Your task to perform on an android device: Go to Amazon Image 0: 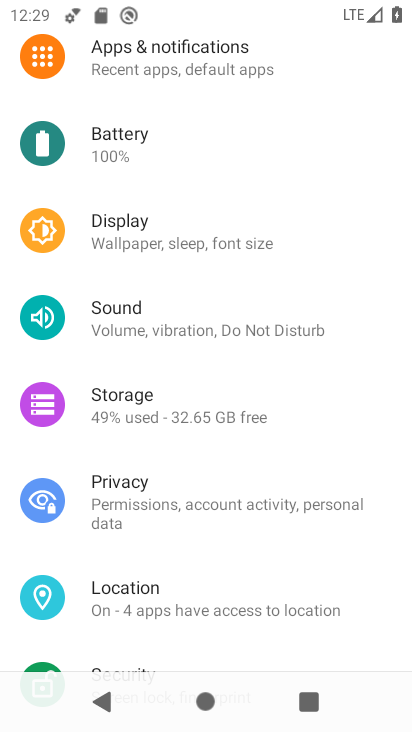
Step 0: press home button
Your task to perform on an android device: Go to Amazon Image 1: 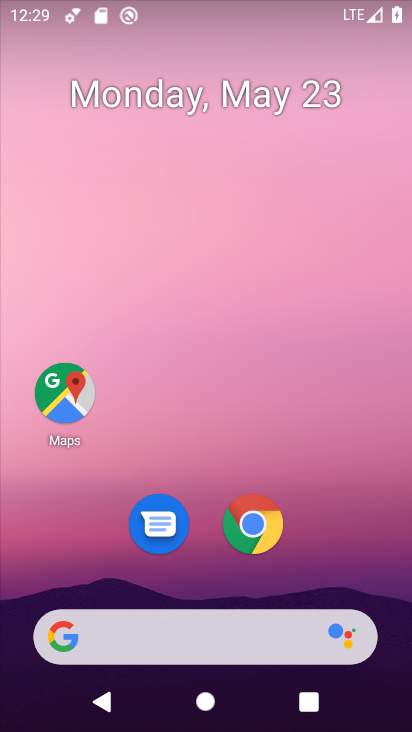
Step 1: click (256, 524)
Your task to perform on an android device: Go to Amazon Image 2: 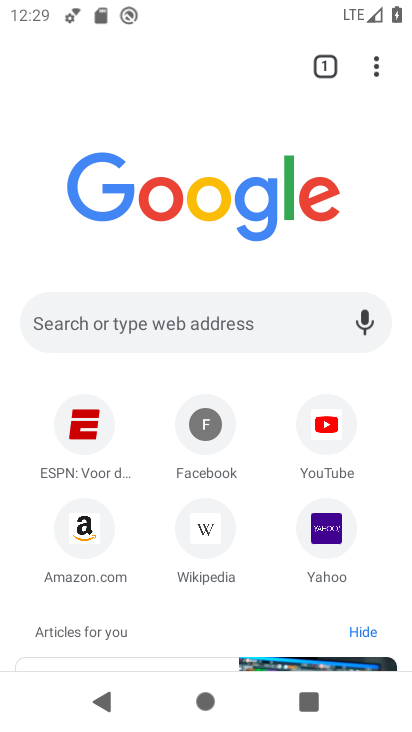
Step 2: click (72, 524)
Your task to perform on an android device: Go to Amazon Image 3: 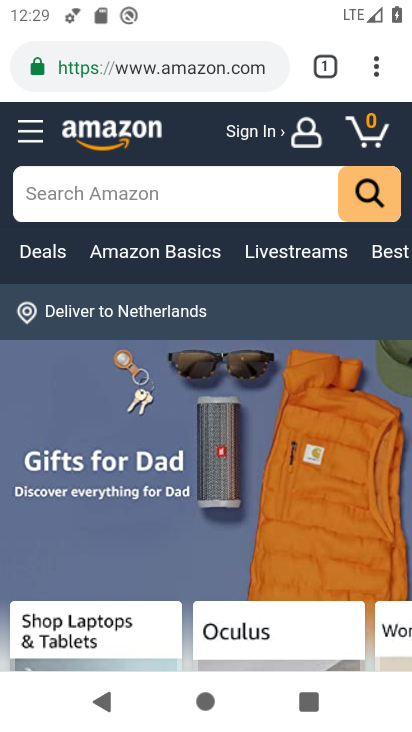
Step 3: task complete